Your task to perform on an android device: Open calendar and show me the third week of next month Image 0: 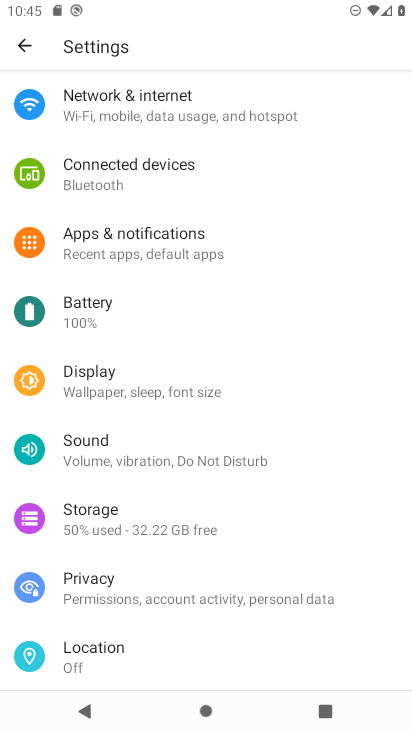
Step 0: press home button
Your task to perform on an android device: Open calendar and show me the third week of next month Image 1: 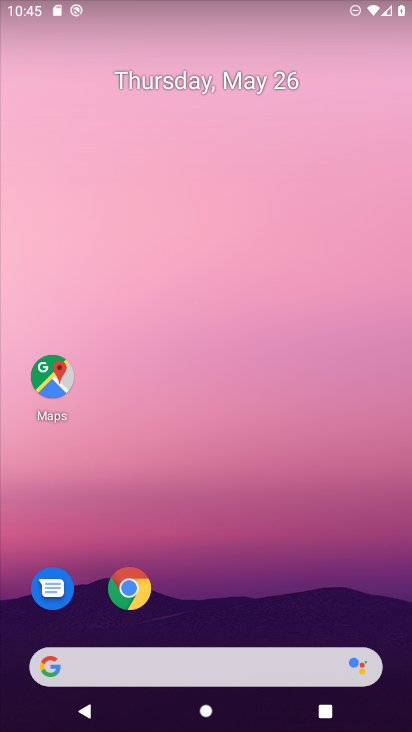
Step 1: drag from (339, 599) to (293, 51)
Your task to perform on an android device: Open calendar and show me the third week of next month Image 2: 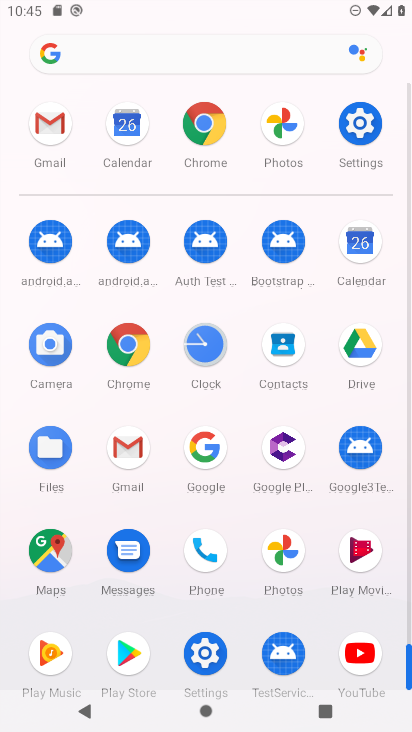
Step 2: click (358, 248)
Your task to perform on an android device: Open calendar and show me the third week of next month Image 3: 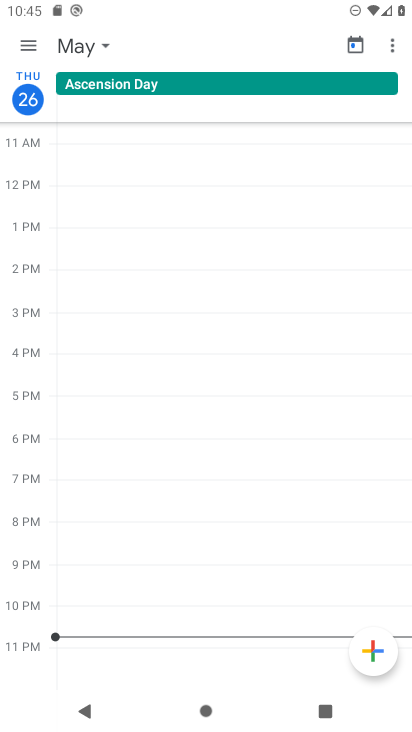
Step 3: click (29, 50)
Your task to perform on an android device: Open calendar and show me the third week of next month Image 4: 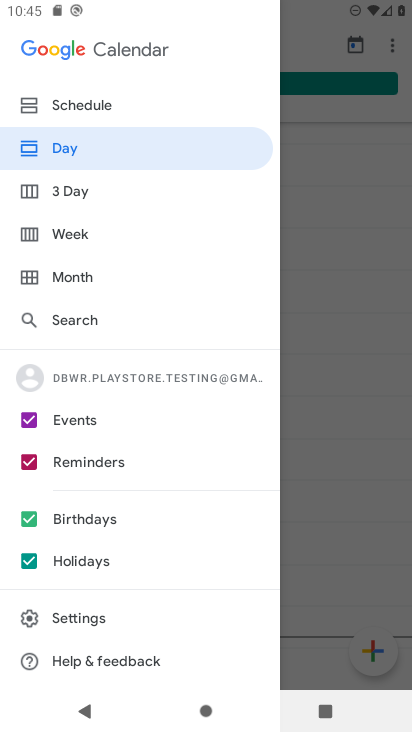
Step 4: click (72, 226)
Your task to perform on an android device: Open calendar and show me the third week of next month Image 5: 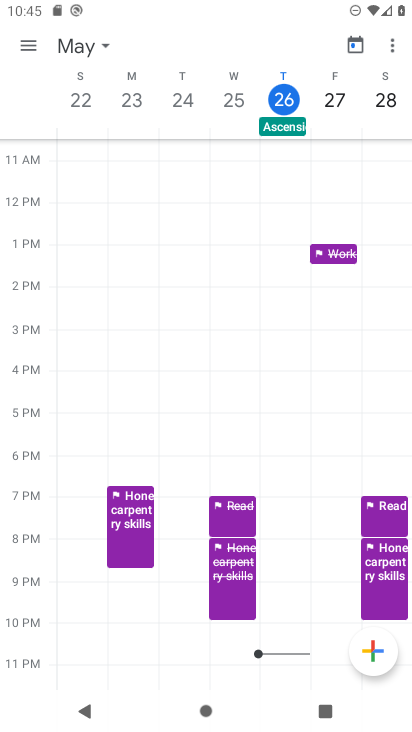
Step 5: click (99, 48)
Your task to perform on an android device: Open calendar and show me the third week of next month Image 6: 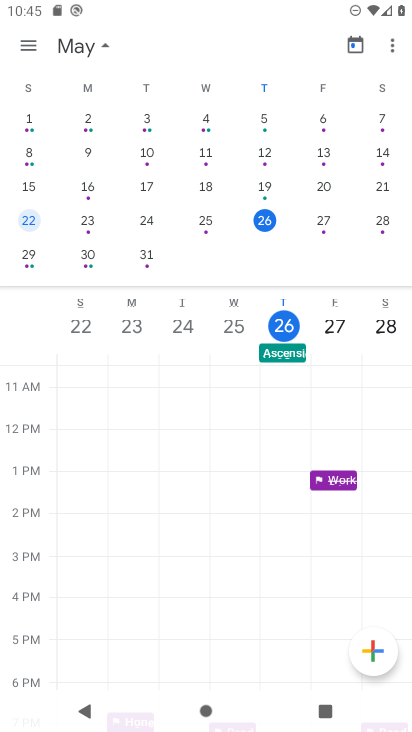
Step 6: drag from (378, 200) to (76, 177)
Your task to perform on an android device: Open calendar and show me the third week of next month Image 7: 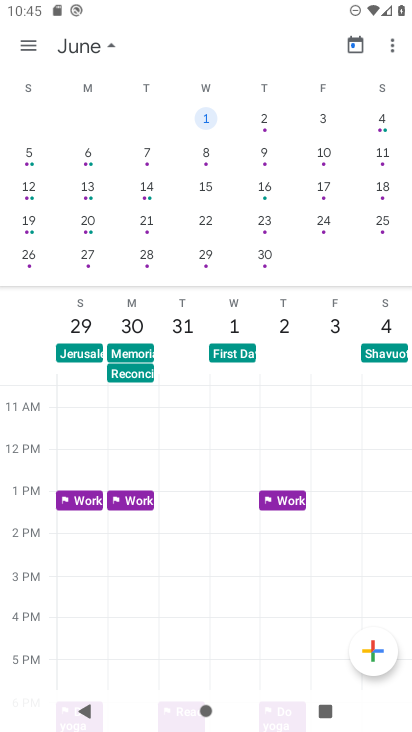
Step 7: click (33, 230)
Your task to perform on an android device: Open calendar and show me the third week of next month Image 8: 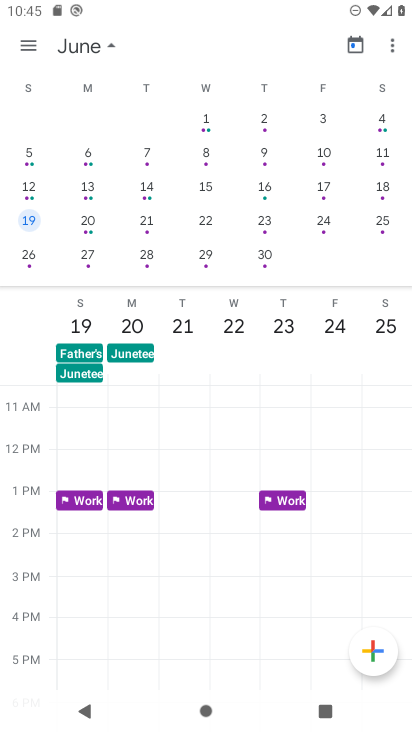
Step 8: task complete